Your task to perform on an android device: open a new tab in the chrome app Image 0: 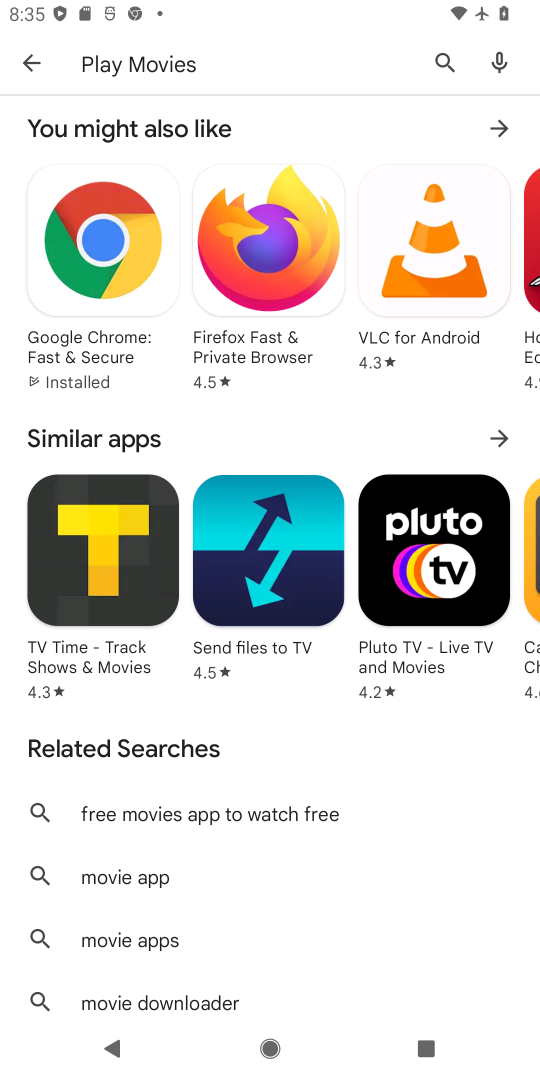
Step 0: press home button
Your task to perform on an android device: open a new tab in the chrome app Image 1: 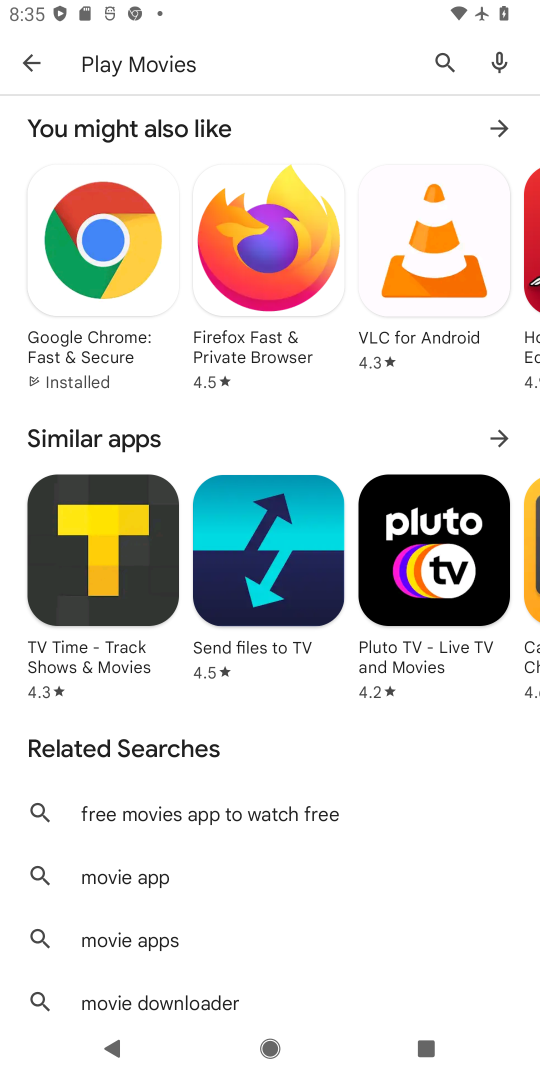
Step 1: press home button
Your task to perform on an android device: open a new tab in the chrome app Image 2: 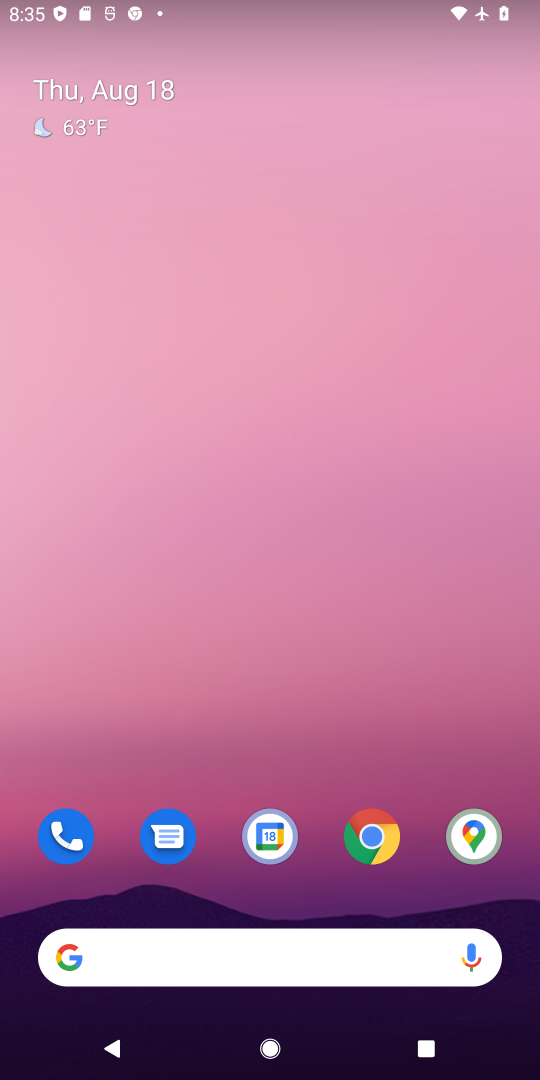
Step 2: drag from (359, 809) to (347, 146)
Your task to perform on an android device: open a new tab in the chrome app Image 3: 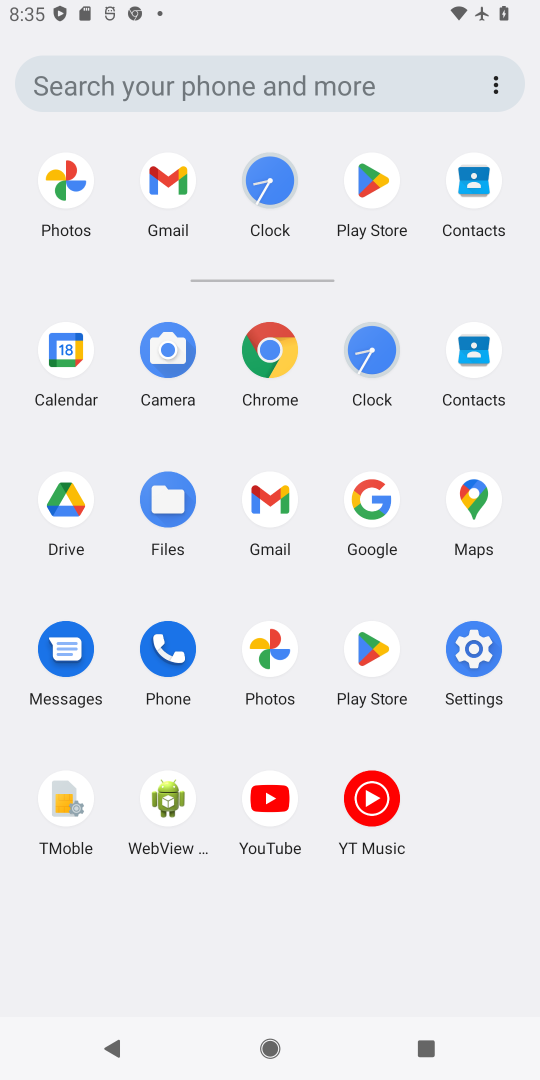
Step 3: click (266, 355)
Your task to perform on an android device: open a new tab in the chrome app Image 4: 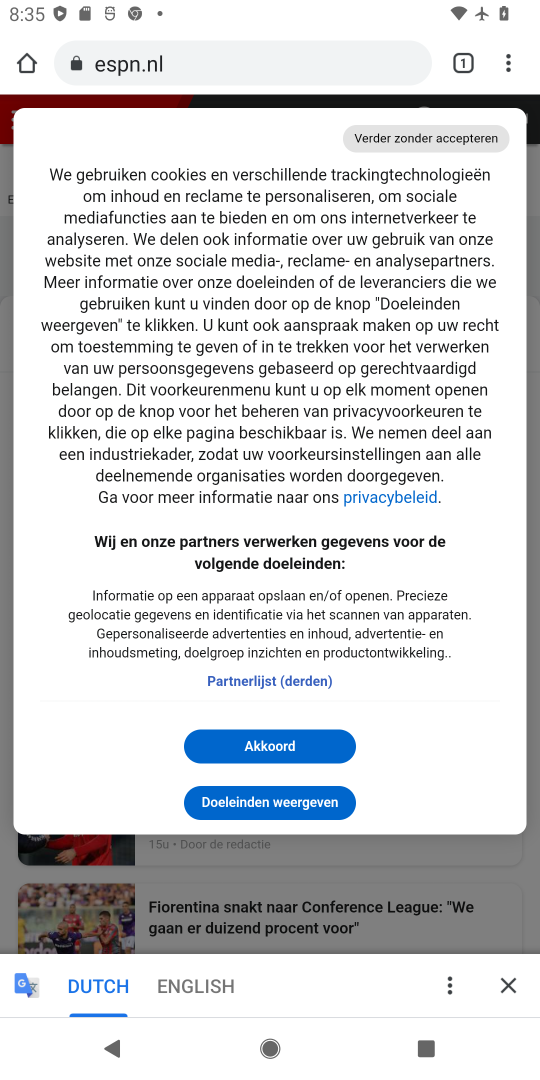
Step 4: task complete